Your task to perform on an android device: open sync settings in chrome Image 0: 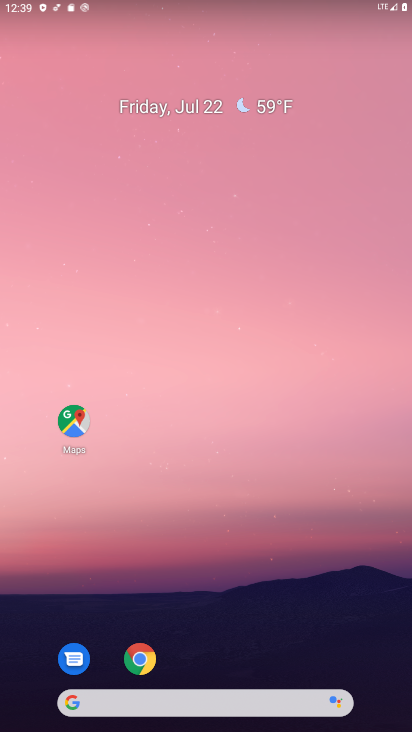
Step 0: click (148, 655)
Your task to perform on an android device: open sync settings in chrome Image 1: 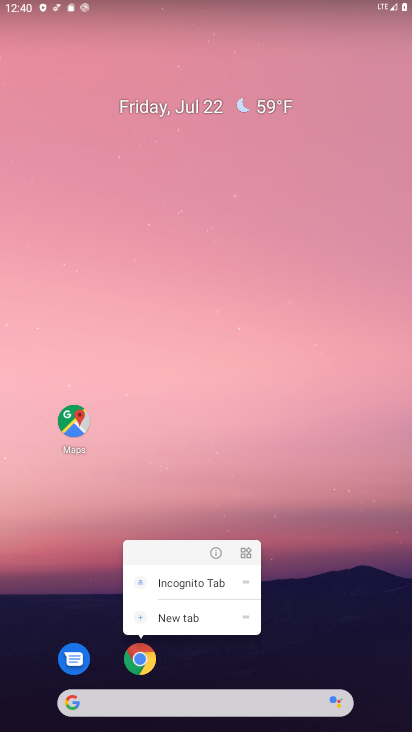
Step 1: click (140, 665)
Your task to perform on an android device: open sync settings in chrome Image 2: 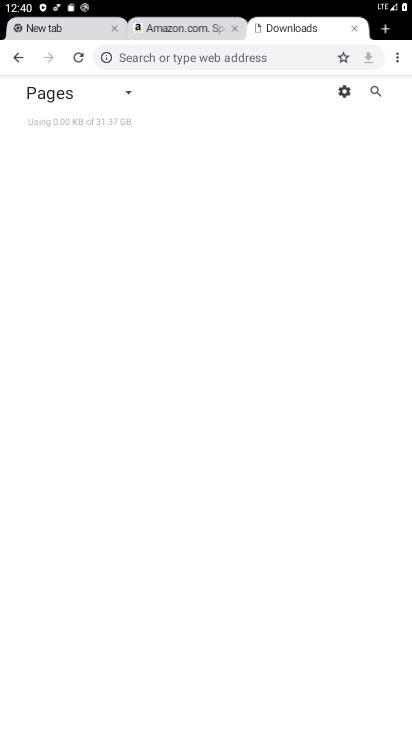
Step 2: click (392, 58)
Your task to perform on an android device: open sync settings in chrome Image 3: 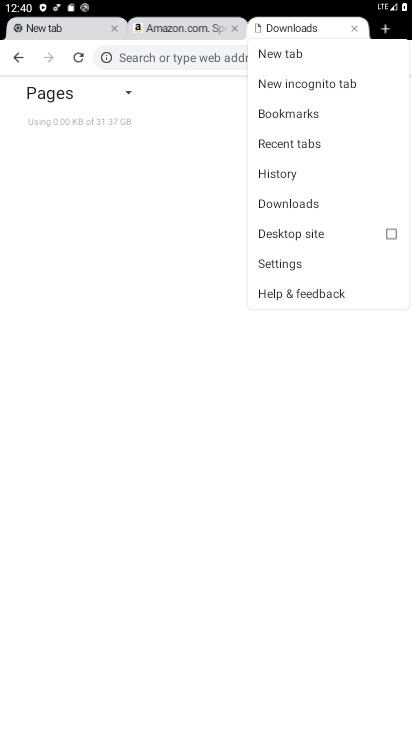
Step 3: click (296, 258)
Your task to perform on an android device: open sync settings in chrome Image 4: 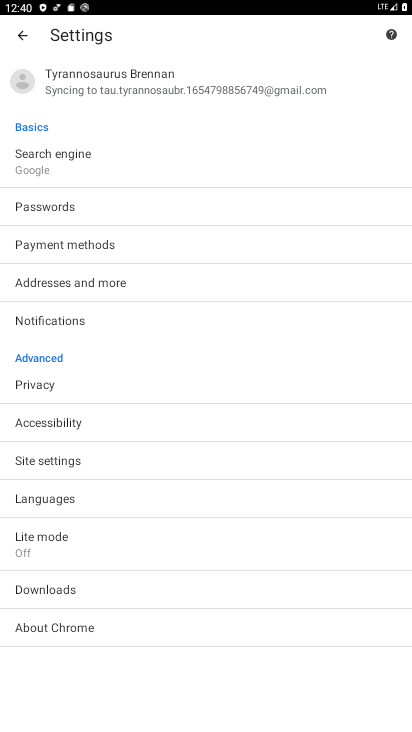
Step 4: click (111, 93)
Your task to perform on an android device: open sync settings in chrome Image 5: 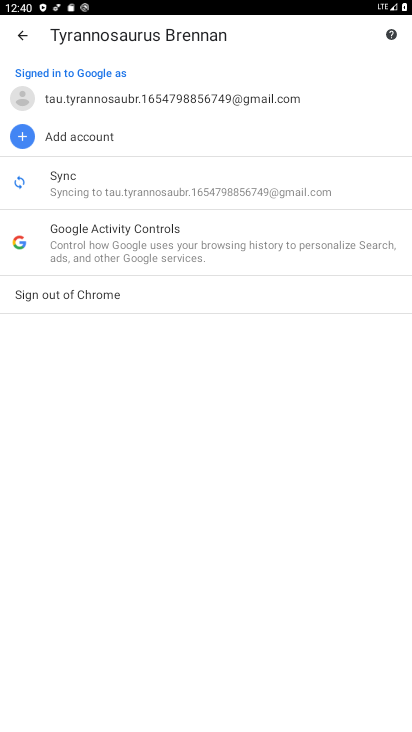
Step 5: click (110, 170)
Your task to perform on an android device: open sync settings in chrome Image 6: 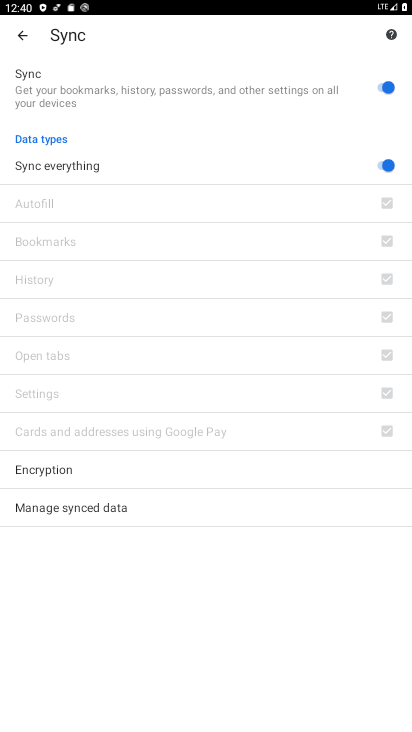
Step 6: task complete